Your task to perform on an android device: change the upload size in google photos Image 0: 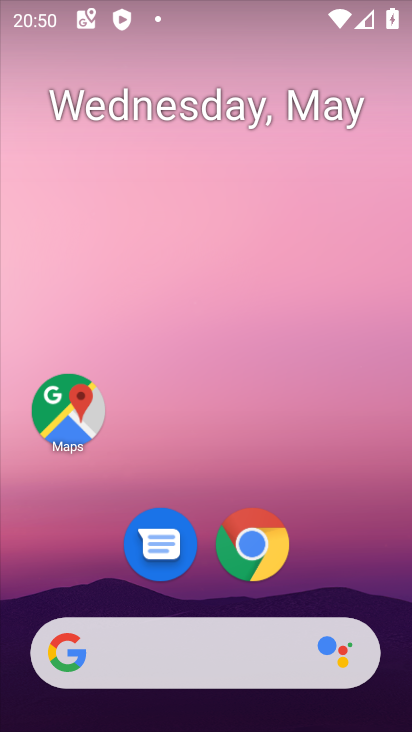
Step 0: drag from (194, 593) to (231, 65)
Your task to perform on an android device: change the upload size in google photos Image 1: 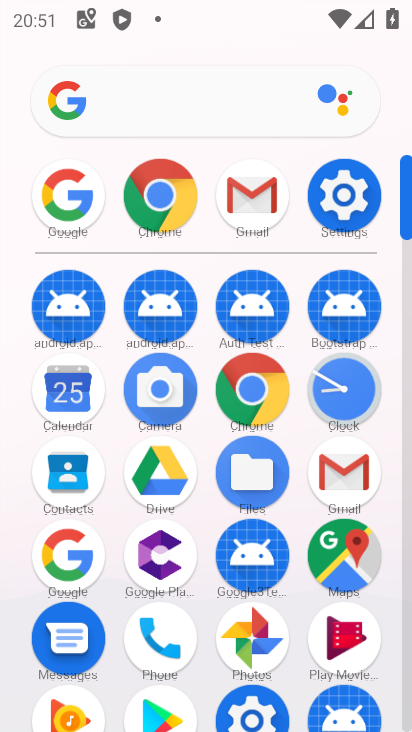
Step 1: click (251, 614)
Your task to perform on an android device: change the upload size in google photos Image 2: 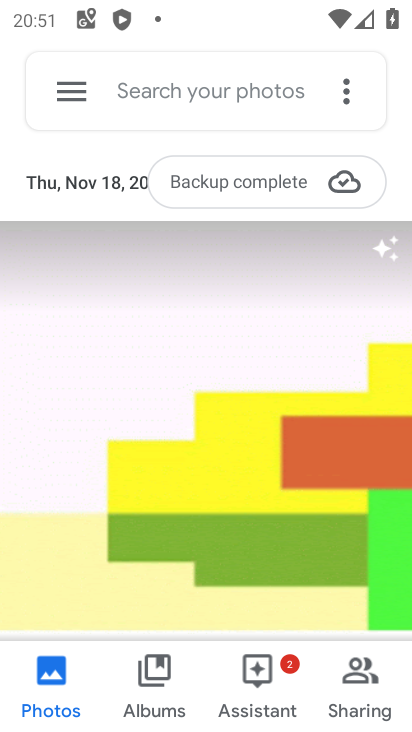
Step 2: click (71, 89)
Your task to perform on an android device: change the upload size in google photos Image 3: 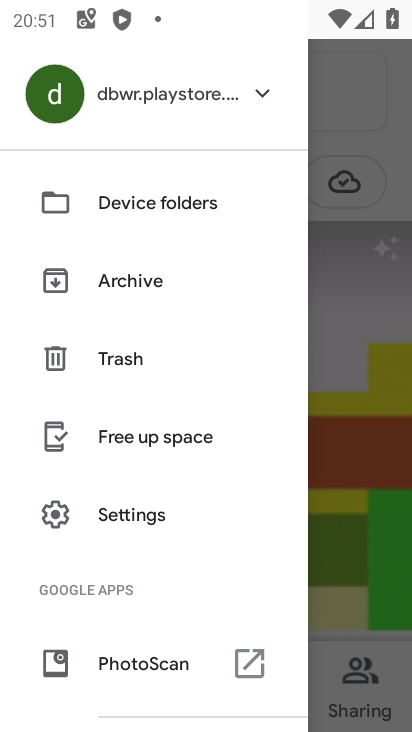
Step 3: click (121, 530)
Your task to perform on an android device: change the upload size in google photos Image 4: 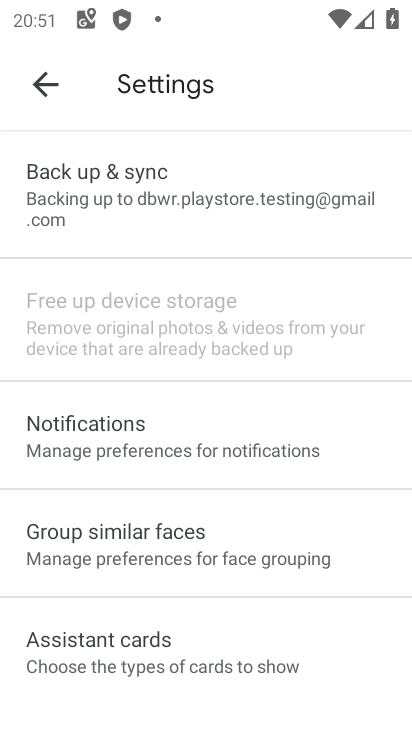
Step 4: click (191, 216)
Your task to perform on an android device: change the upload size in google photos Image 5: 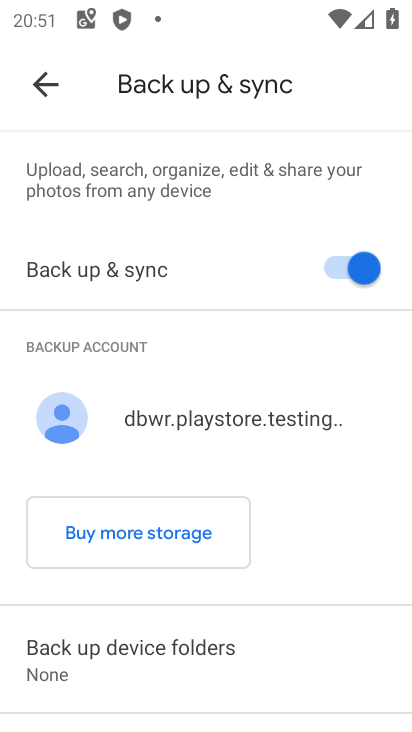
Step 5: drag from (110, 680) to (273, 236)
Your task to perform on an android device: change the upload size in google photos Image 6: 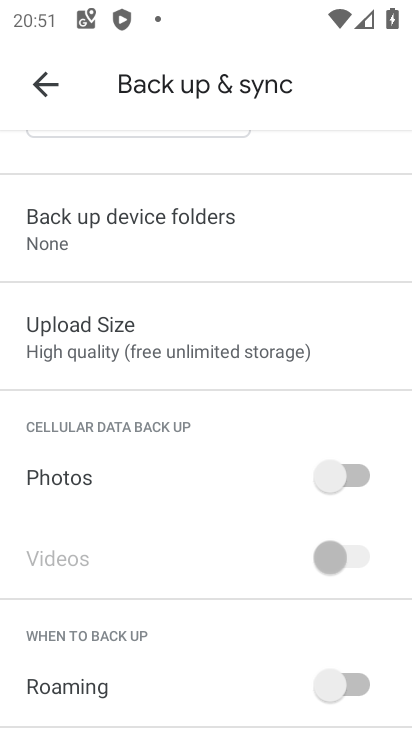
Step 6: click (169, 334)
Your task to perform on an android device: change the upload size in google photos Image 7: 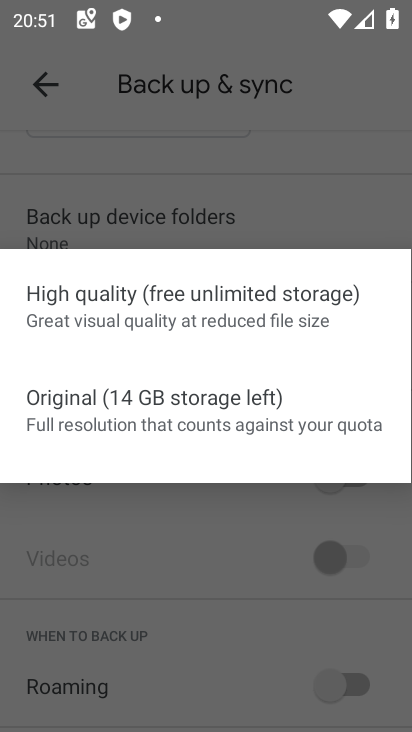
Step 7: click (215, 392)
Your task to perform on an android device: change the upload size in google photos Image 8: 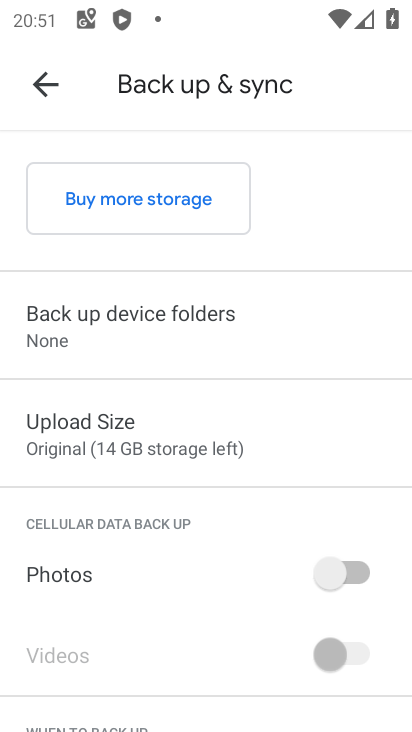
Step 8: task complete